Your task to perform on an android device: toggle wifi Image 0: 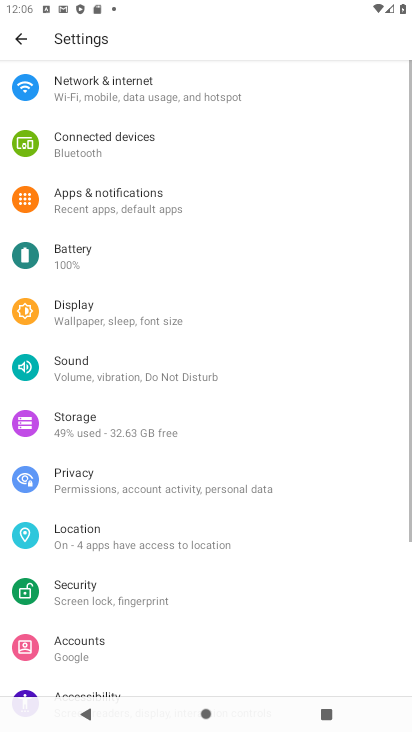
Step 0: click (198, 108)
Your task to perform on an android device: toggle wifi Image 1: 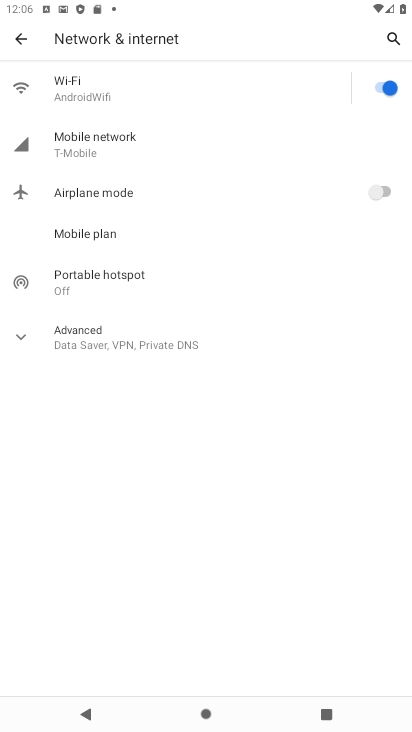
Step 1: click (198, 108)
Your task to perform on an android device: toggle wifi Image 2: 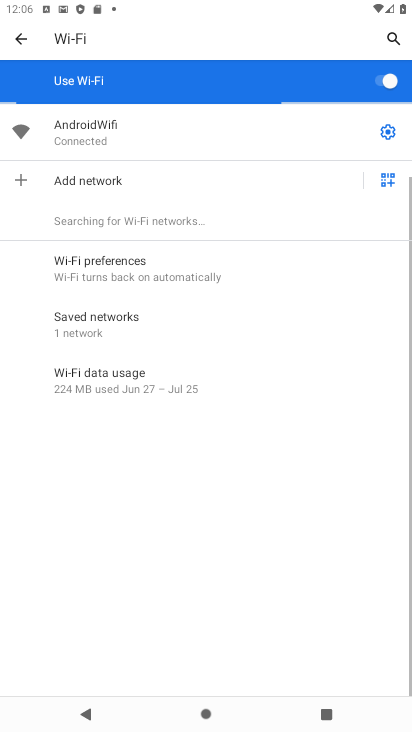
Step 2: click (386, 82)
Your task to perform on an android device: toggle wifi Image 3: 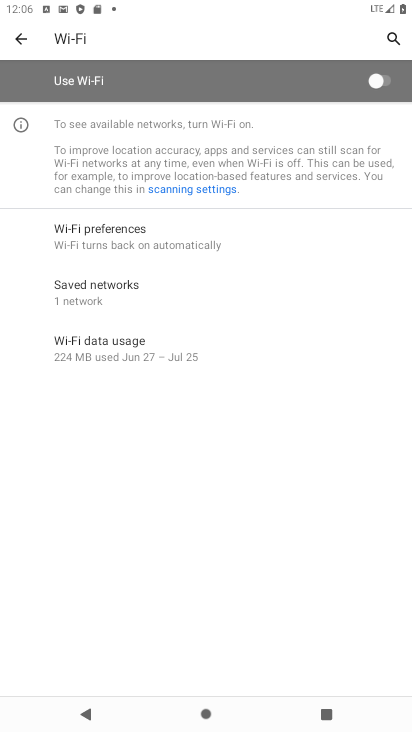
Step 3: task complete